Your task to perform on an android device: Go to privacy settings Image 0: 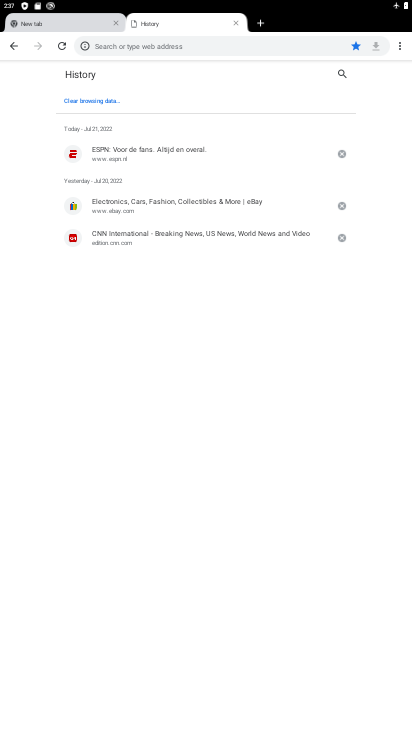
Step 0: press home button
Your task to perform on an android device: Go to privacy settings Image 1: 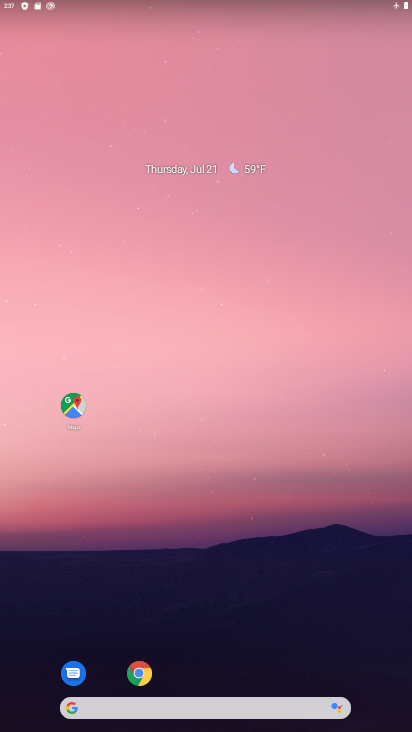
Step 1: drag from (383, 670) to (308, 77)
Your task to perform on an android device: Go to privacy settings Image 2: 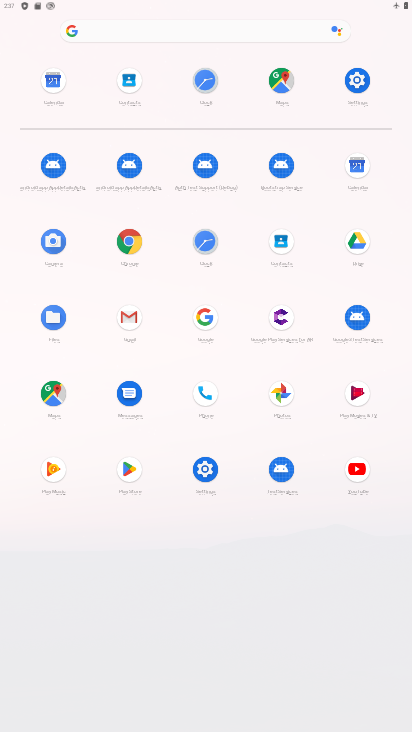
Step 2: click (204, 471)
Your task to perform on an android device: Go to privacy settings Image 3: 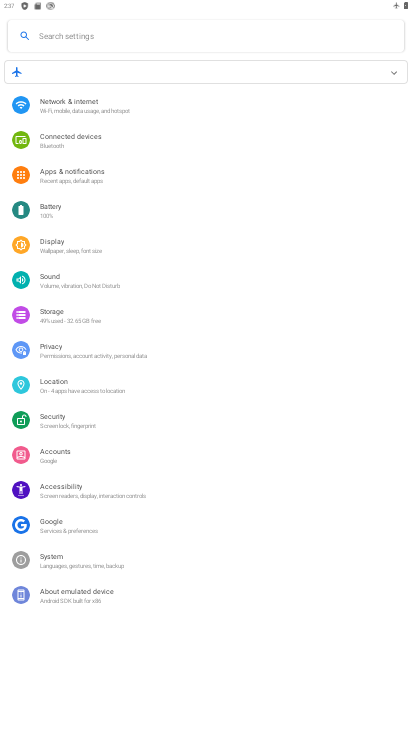
Step 3: click (51, 348)
Your task to perform on an android device: Go to privacy settings Image 4: 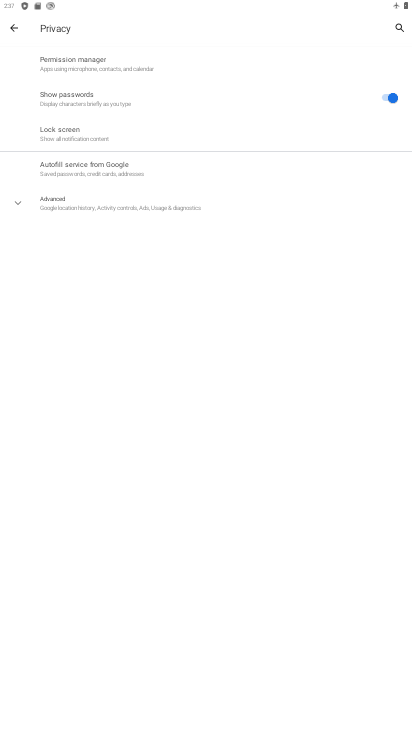
Step 4: click (18, 200)
Your task to perform on an android device: Go to privacy settings Image 5: 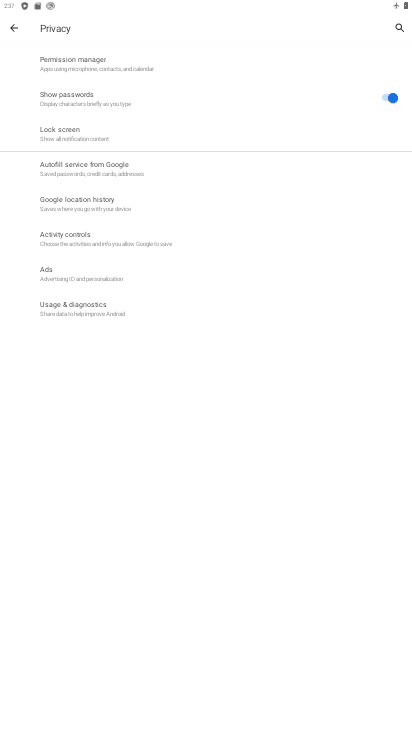
Step 5: task complete